Your task to perform on an android device: add a contact in the contacts app Image 0: 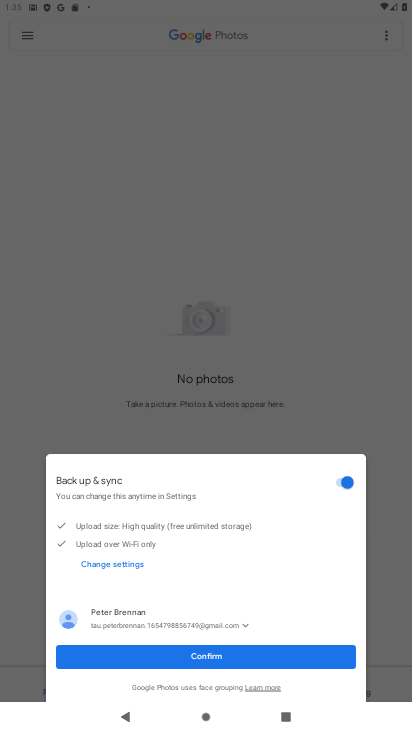
Step 0: press home button
Your task to perform on an android device: add a contact in the contacts app Image 1: 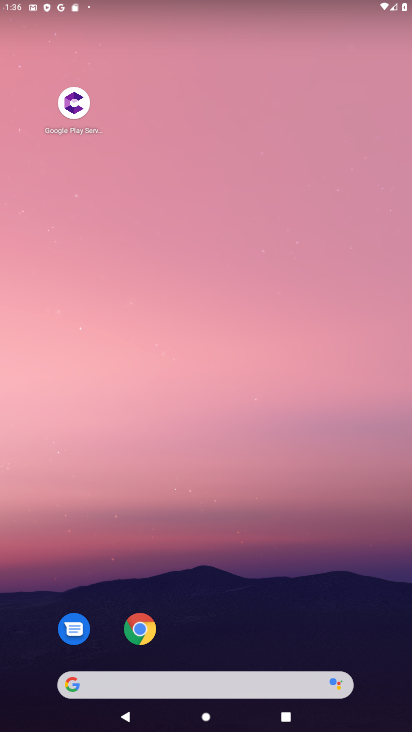
Step 1: drag from (260, 632) to (143, 23)
Your task to perform on an android device: add a contact in the contacts app Image 2: 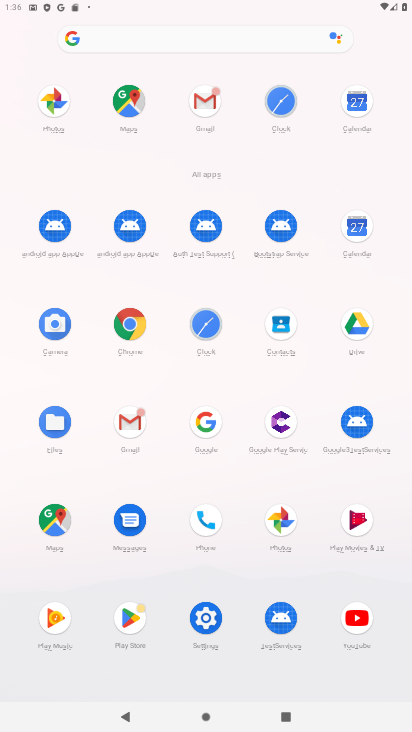
Step 2: click (368, 229)
Your task to perform on an android device: add a contact in the contacts app Image 3: 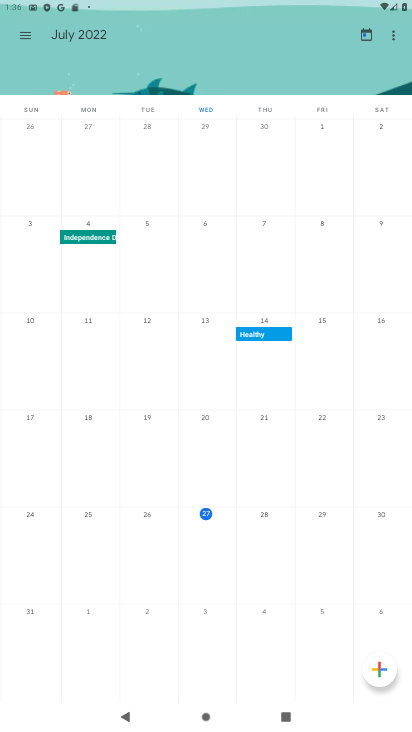
Step 3: task complete